Your task to perform on an android device: What is the recent news? Image 0: 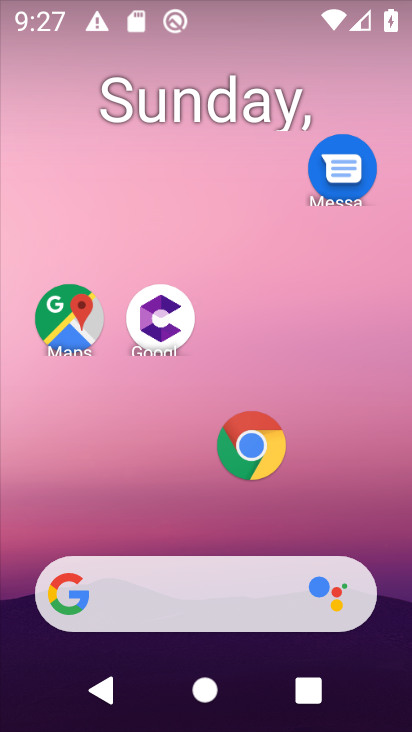
Step 0: drag from (13, 720) to (96, 730)
Your task to perform on an android device: What is the recent news? Image 1: 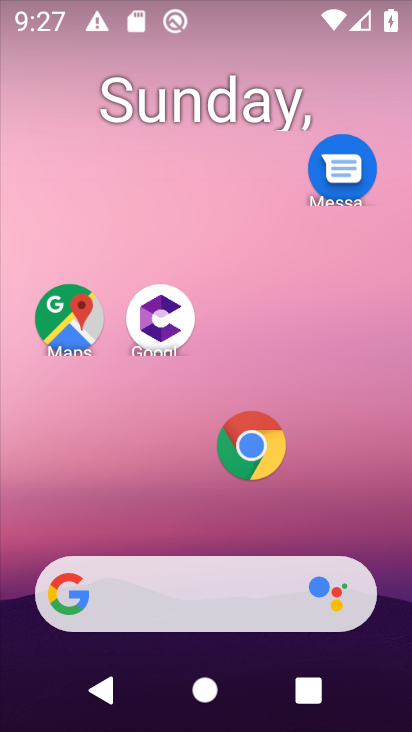
Step 1: click (206, 610)
Your task to perform on an android device: What is the recent news? Image 2: 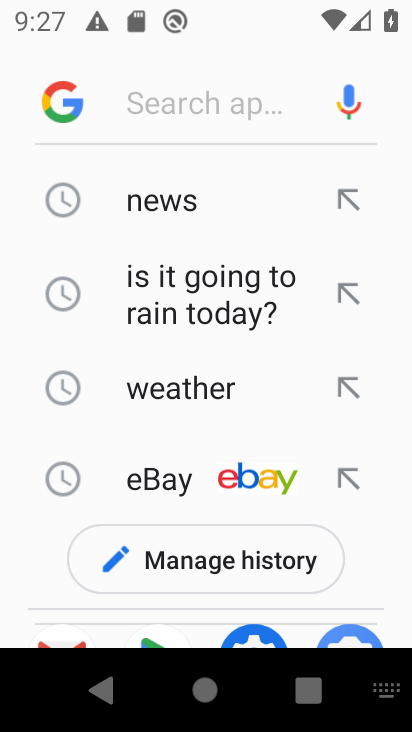
Step 2: type "What is the recent news?"
Your task to perform on an android device: What is the recent news? Image 3: 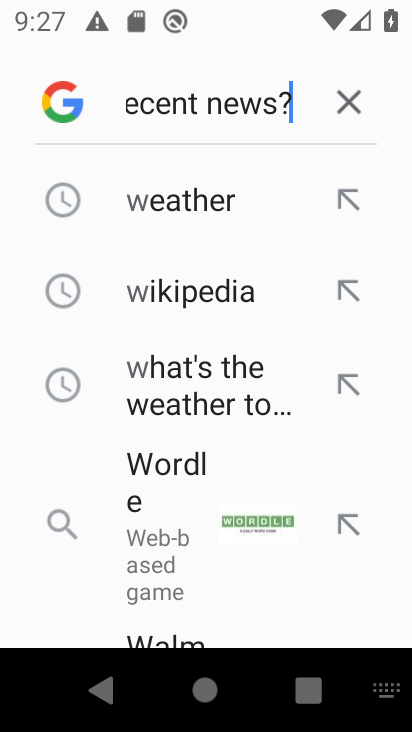
Step 3: press enter
Your task to perform on an android device: What is the recent news? Image 4: 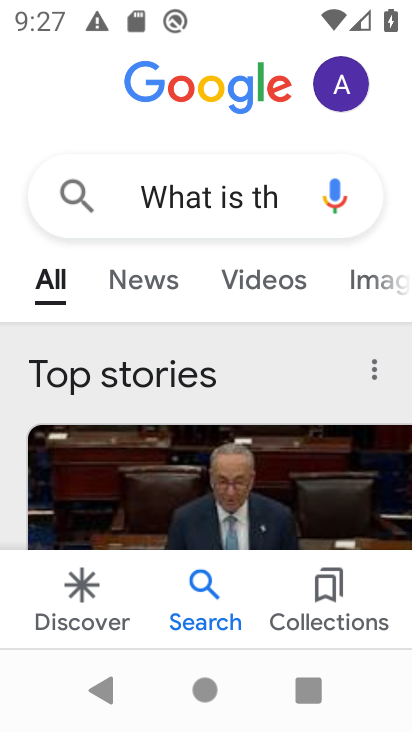
Step 4: task complete